Your task to perform on an android device: Go to Reddit.com Image 0: 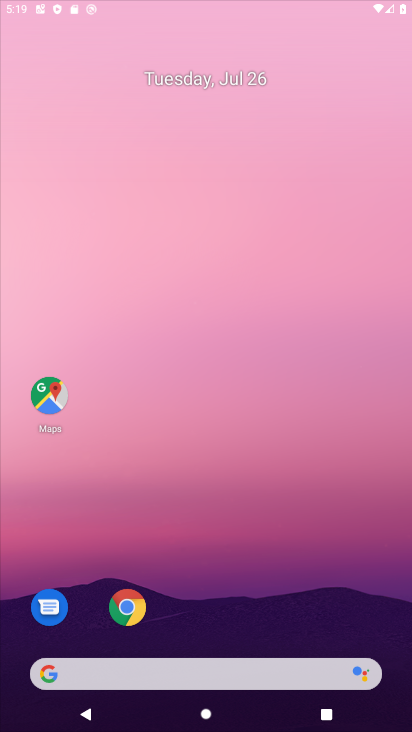
Step 0: press home button
Your task to perform on an android device: Go to Reddit.com Image 1: 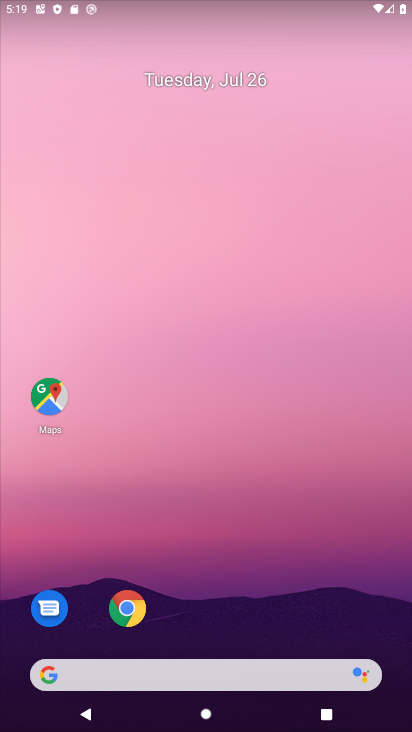
Step 1: click (47, 677)
Your task to perform on an android device: Go to Reddit.com Image 2: 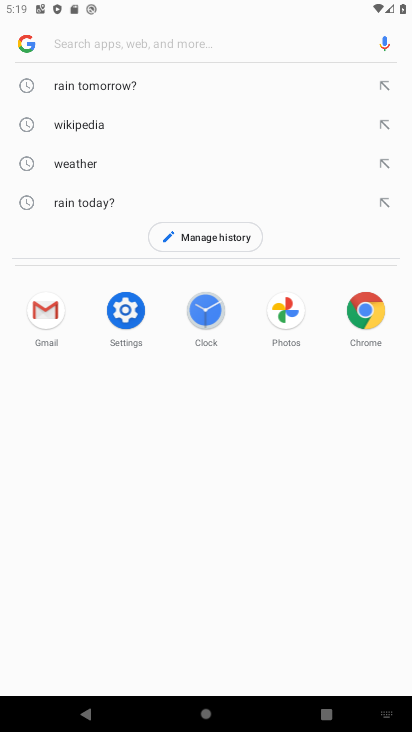
Step 2: type "Reddit.com"
Your task to perform on an android device: Go to Reddit.com Image 3: 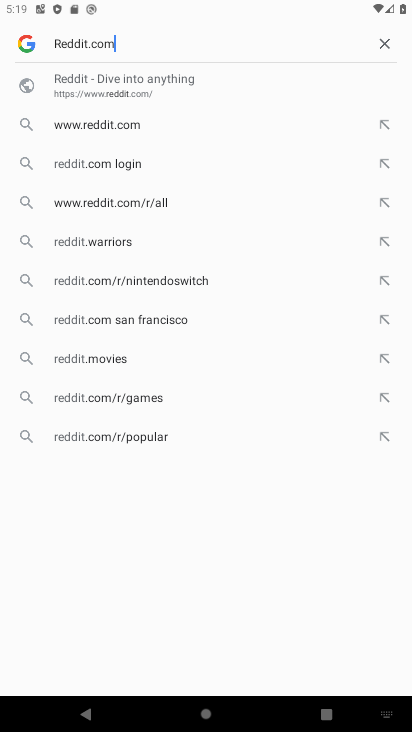
Step 3: press enter
Your task to perform on an android device: Go to Reddit.com Image 4: 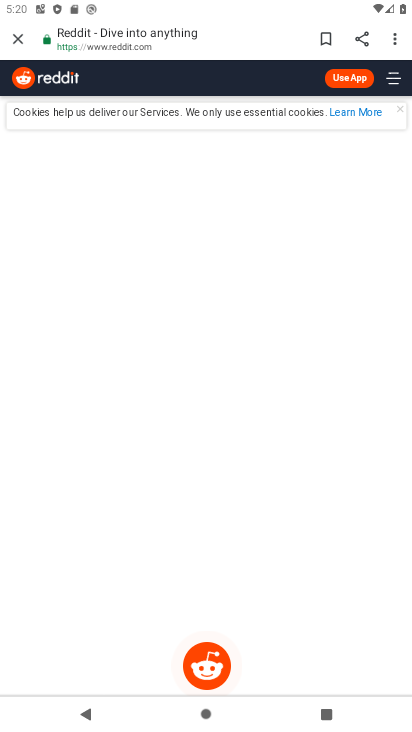
Step 4: task complete